Your task to perform on an android device: stop showing notifications on the lock screen Image 0: 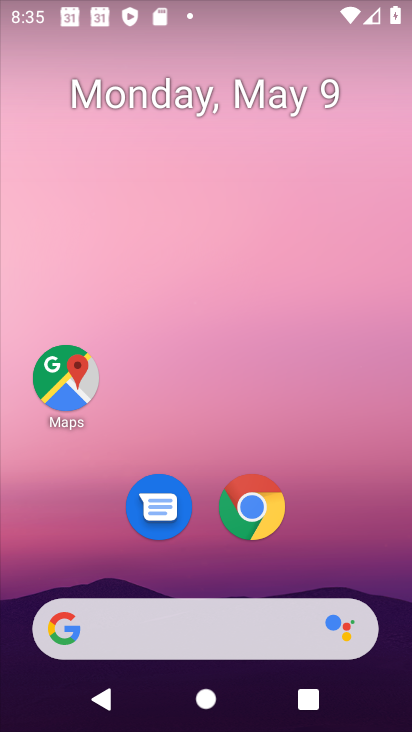
Step 0: drag from (328, 517) to (265, 136)
Your task to perform on an android device: stop showing notifications on the lock screen Image 1: 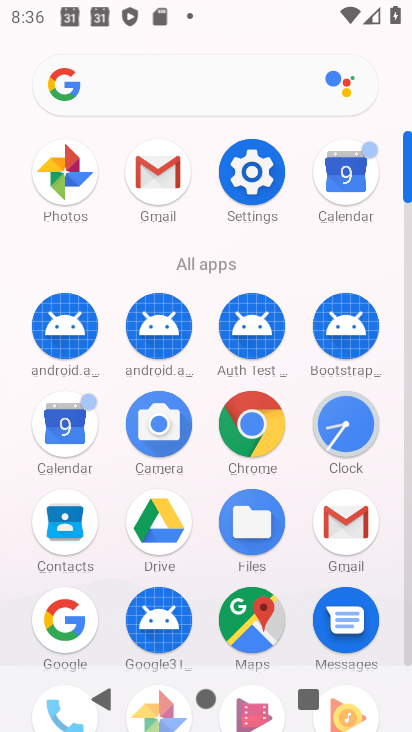
Step 1: click (249, 169)
Your task to perform on an android device: stop showing notifications on the lock screen Image 2: 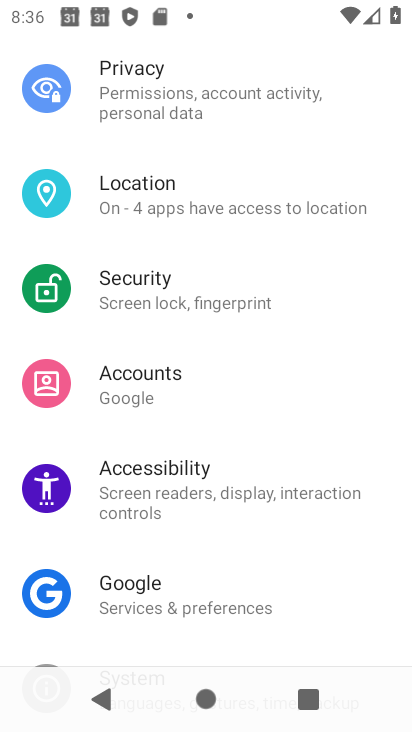
Step 2: drag from (224, 171) to (228, 335)
Your task to perform on an android device: stop showing notifications on the lock screen Image 3: 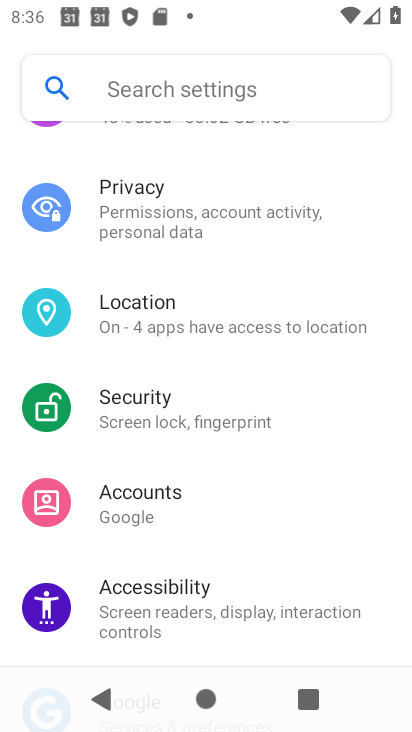
Step 3: drag from (217, 203) to (245, 390)
Your task to perform on an android device: stop showing notifications on the lock screen Image 4: 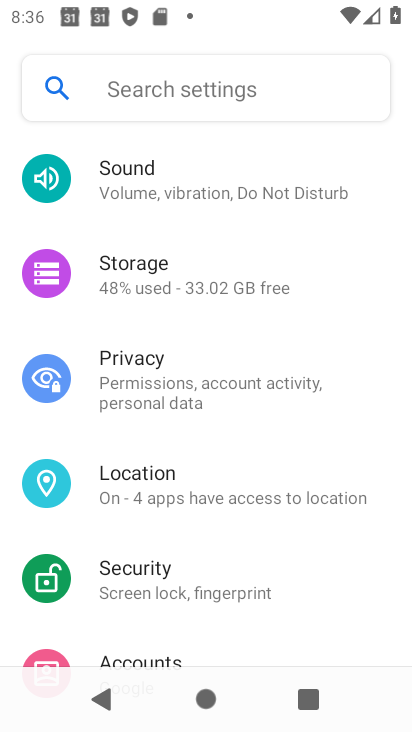
Step 4: drag from (220, 250) to (232, 471)
Your task to perform on an android device: stop showing notifications on the lock screen Image 5: 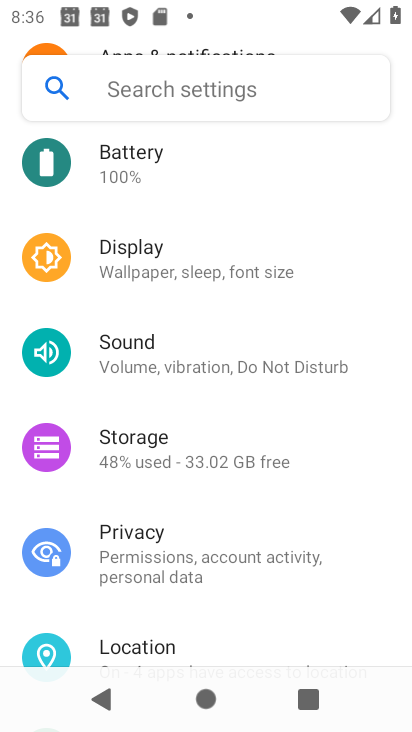
Step 5: drag from (205, 234) to (228, 434)
Your task to perform on an android device: stop showing notifications on the lock screen Image 6: 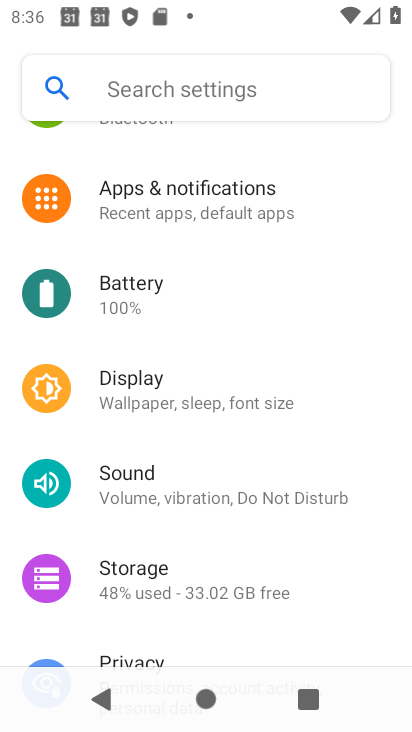
Step 6: click (191, 186)
Your task to perform on an android device: stop showing notifications on the lock screen Image 7: 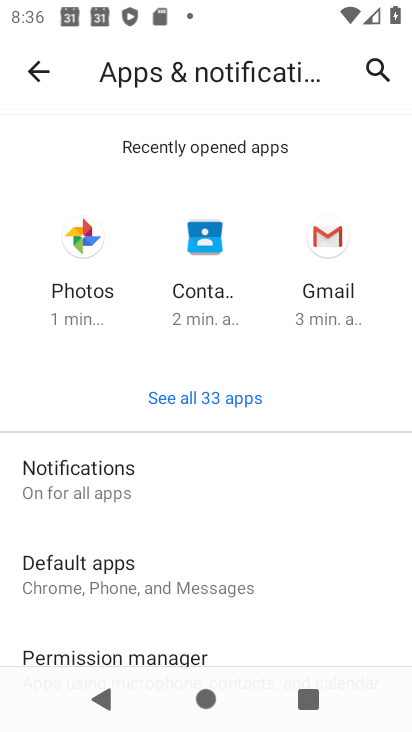
Step 7: click (80, 461)
Your task to perform on an android device: stop showing notifications on the lock screen Image 8: 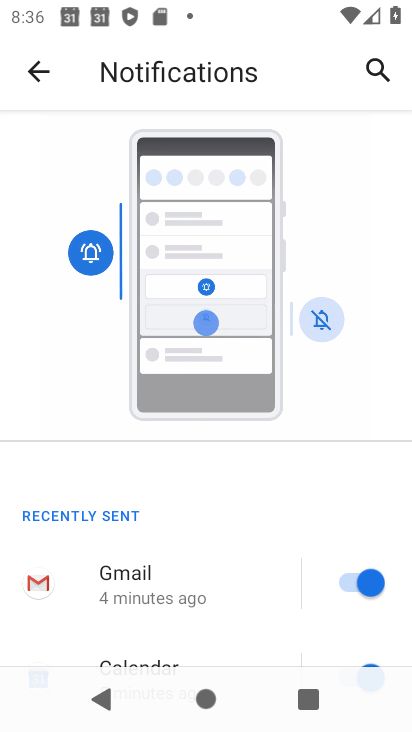
Step 8: drag from (237, 559) to (295, 396)
Your task to perform on an android device: stop showing notifications on the lock screen Image 9: 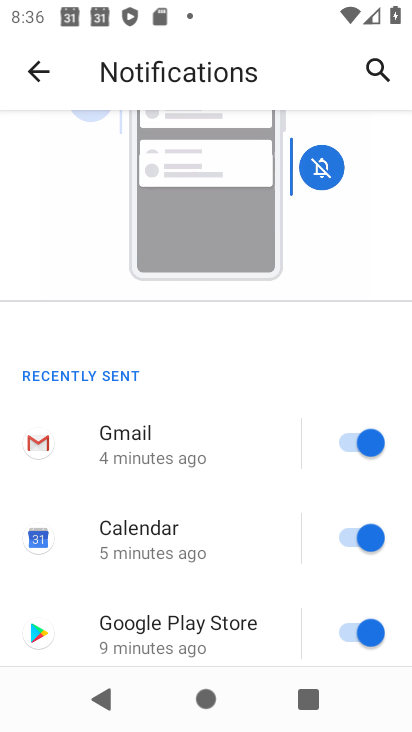
Step 9: drag from (217, 590) to (290, 405)
Your task to perform on an android device: stop showing notifications on the lock screen Image 10: 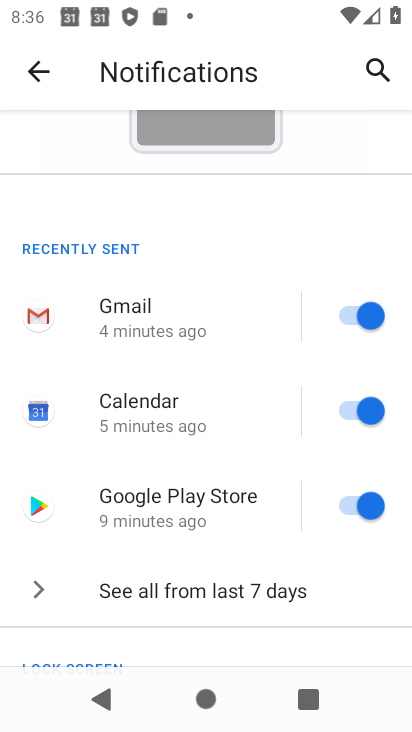
Step 10: drag from (178, 565) to (240, 372)
Your task to perform on an android device: stop showing notifications on the lock screen Image 11: 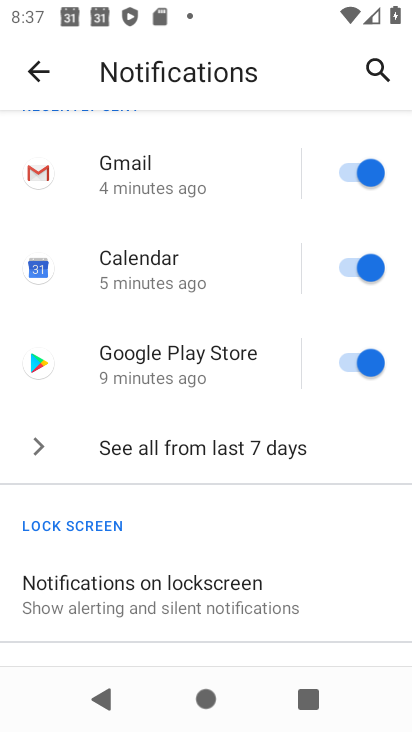
Step 11: click (156, 574)
Your task to perform on an android device: stop showing notifications on the lock screen Image 12: 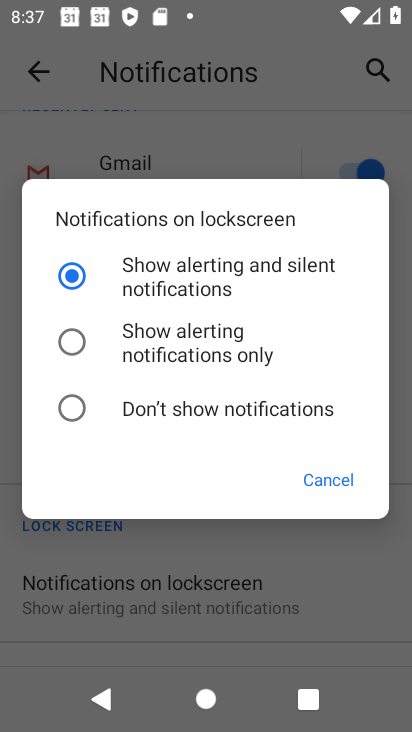
Step 12: click (73, 403)
Your task to perform on an android device: stop showing notifications on the lock screen Image 13: 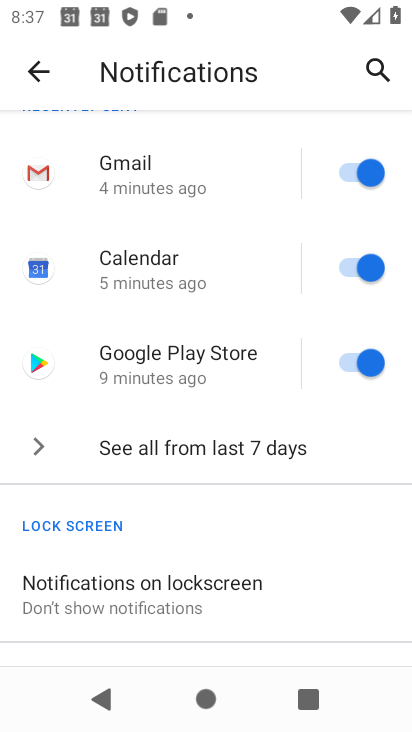
Step 13: task complete